Your task to perform on an android device: Open Chrome and go to settings Image 0: 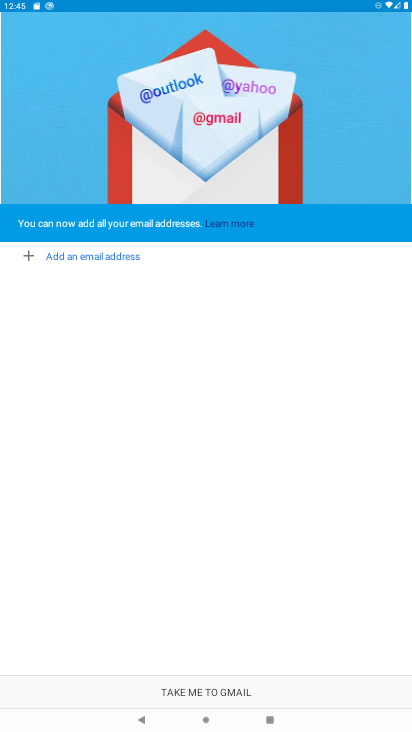
Step 0: click (221, 696)
Your task to perform on an android device: Open Chrome and go to settings Image 1: 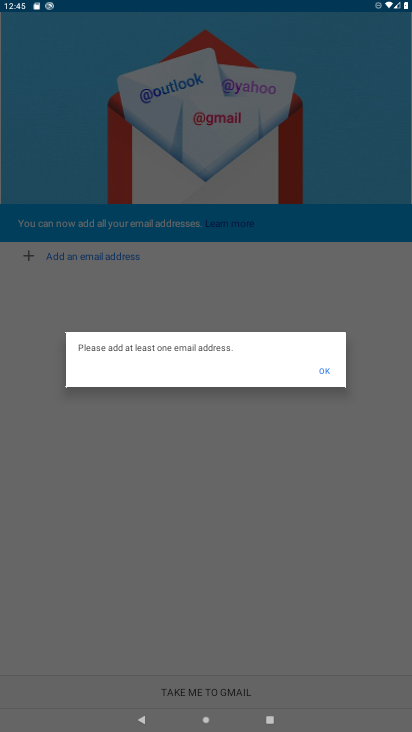
Step 1: press home button
Your task to perform on an android device: Open Chrome and go to settings Image 2: 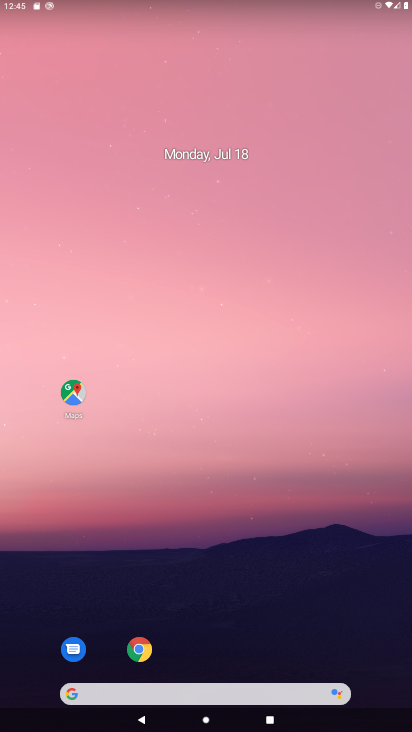
Step 2: click (142, 650)
Your task to perform on an android device: Open Chrome and go to settings Image 3: 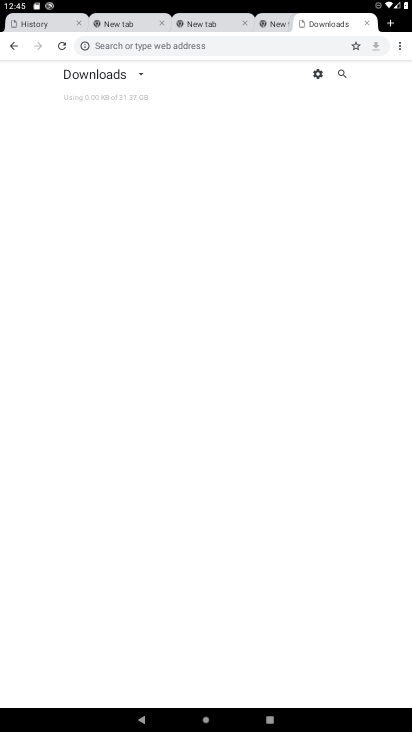
Step 3: click (402, 44)
Your task to perform on an android device: Open Chrome and go to settings Image 4: 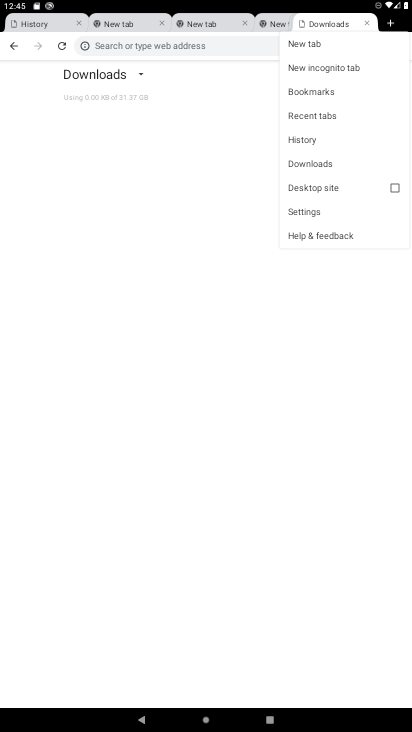
Step 4: click (315, 211)
Your task to perform on an android device: Open Chrome and go to settings Image 5: 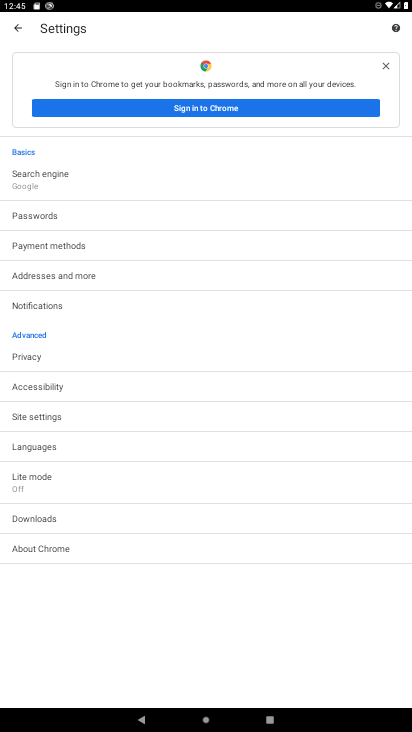
Step 5: task complete